Your task to perform on an android device: Go to display settings Image 0: 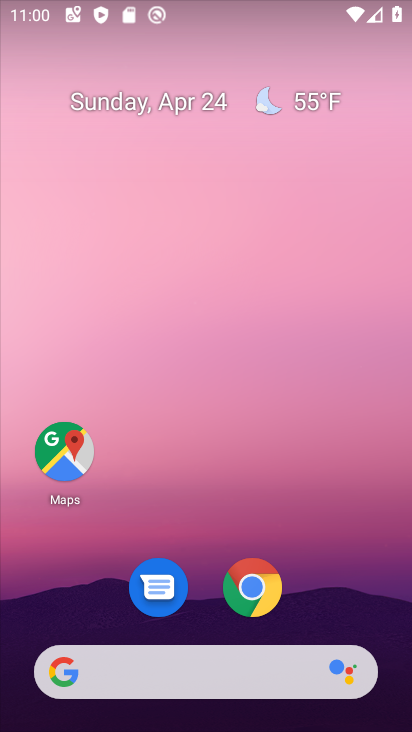
Step 0: drag from (339, 571) to (313, 72)
Your task to perform on an android device: Go to display settings Image 1: 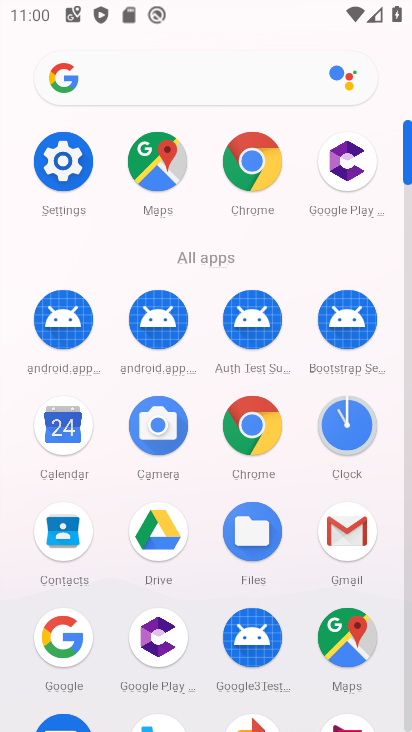
Step 1: click (60, 158)
Your task to perform on an android device: Go to display settings Image 2: 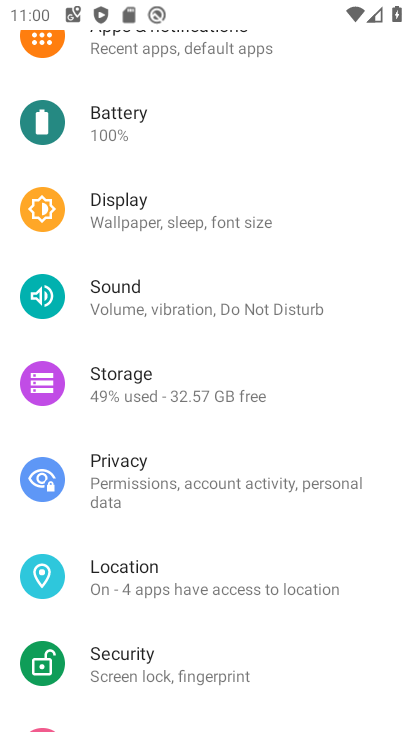
Step 2: drag from (221, 635) to (273, 259)
Your task to perform on an android device: Go to display settings Image 3: 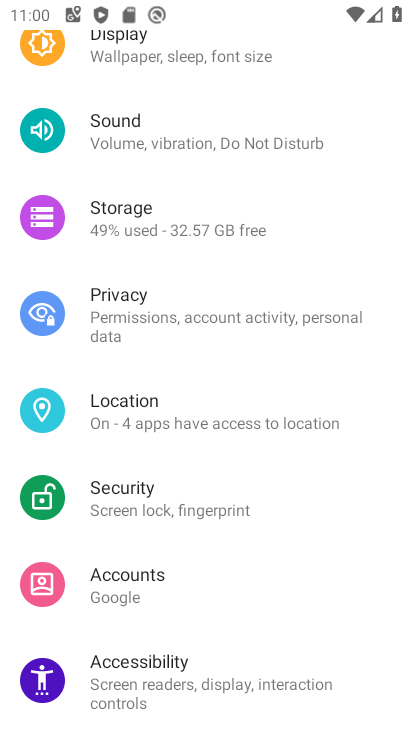
Step 3: drag from (242, 580) to (228, 630)
Your task to perform on an android device: Go to display settings Image 4: 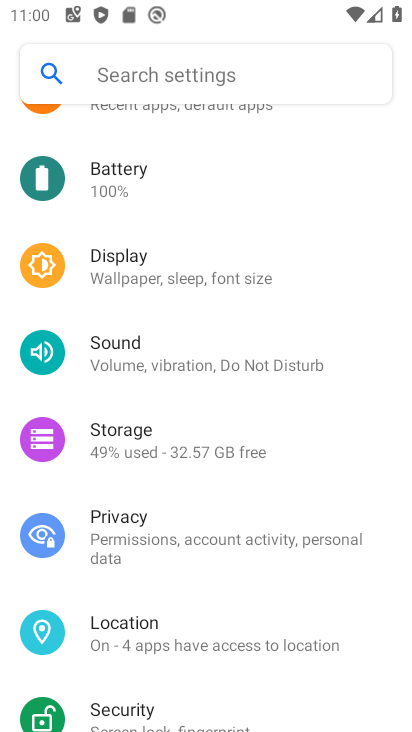
Step 4: click (214, 274)
Your task to perform on an android device: Go to display settings Image 5: 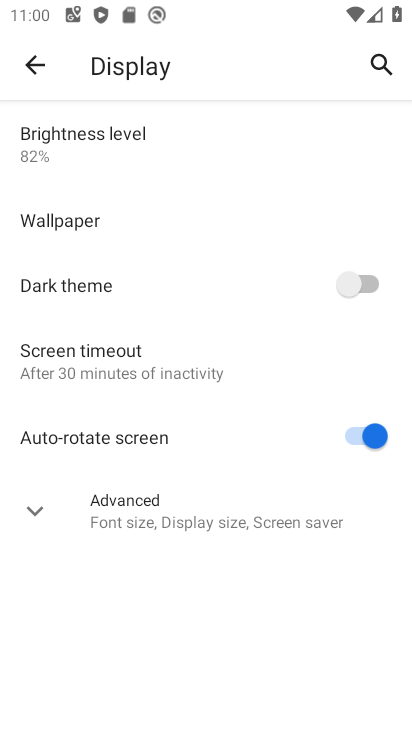
Step 5: task complete